Your task to perform on an android device: turn vacation reply on in the gmail app Image 0: 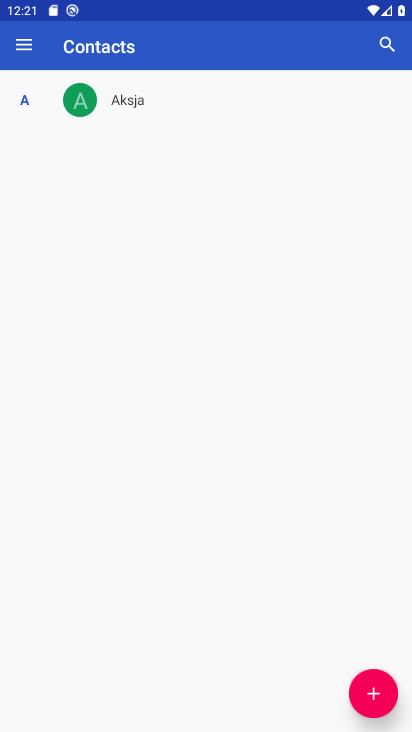
Step 0: press home button
Your task to perform on an android device: turn vacation reply on in the gmail app Image 1: 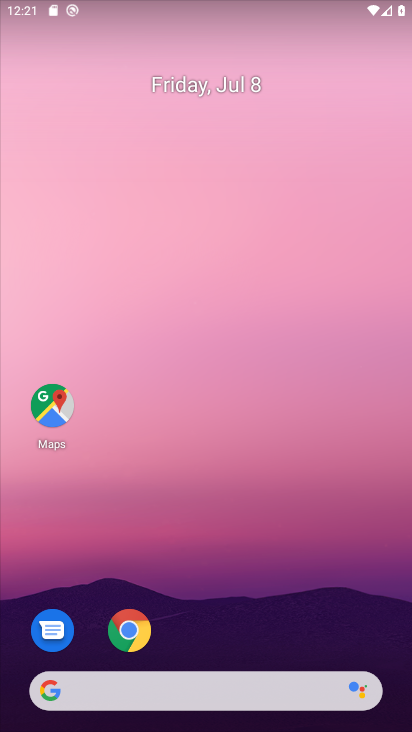
Step 1: drag from (293, 642) to (229, 136)
Your task to perform on an android device: turn vacation reply on in the gmail app Image 2: 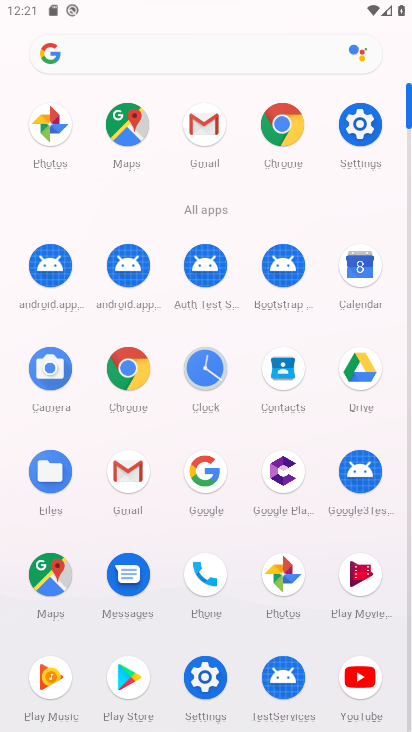
Step 2: click (128, 469)
Your task to perform on an android device: turn vacation reply on in the gmail app Image 3: 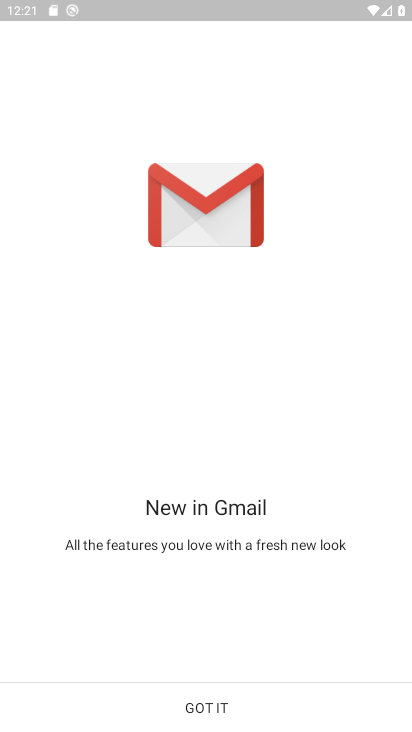
Step 3: click (161, 702)
Your task to perform on an android device: turn vacation reply on in the gmail app Image 4: 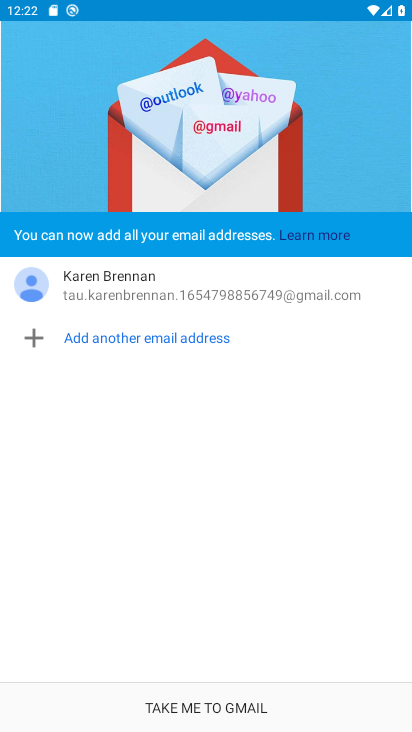
Step 4: click (222, 702)
Your task to perform on an android device: turn vacation reply on in the gmail app Image 5: 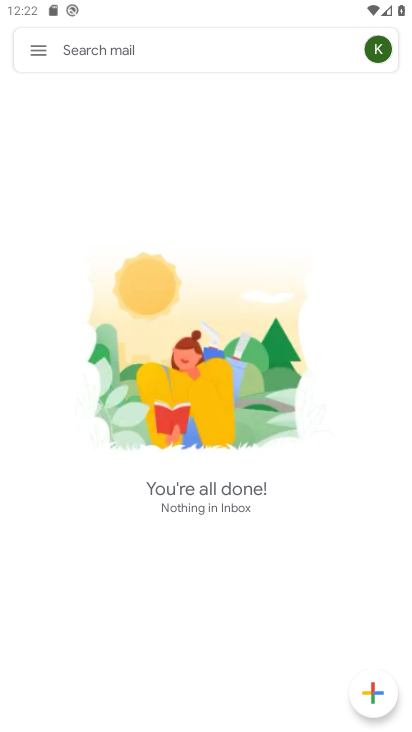
Step 5: click (42, 50)
Your task to perform on an android device: turn vacation reply on in the gmail app Image 6: 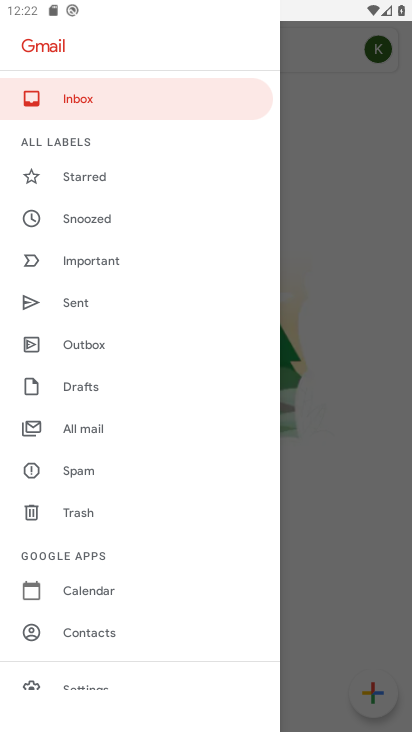
Step 6: drag from (89, 667) to (73, 560)
Your task to perform on an android device: turn vacation reply on in the gmail app Image 7: 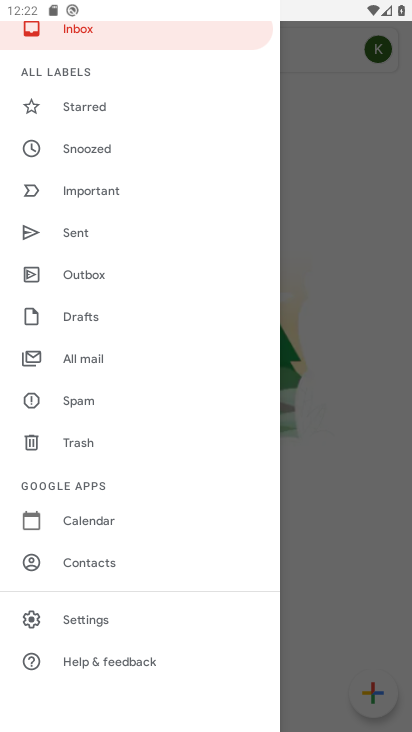
Step 7: click (85, 613)
Your task to perform on an android device: turn vacation reply on in the gmail app Image 8: 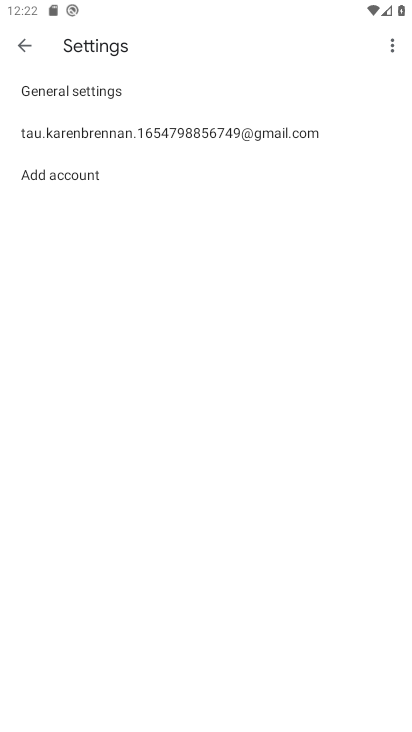
Step 8: click (36, 138)
Your task to perform on an android device: turn vacation reply on in the gmail app Image 9: 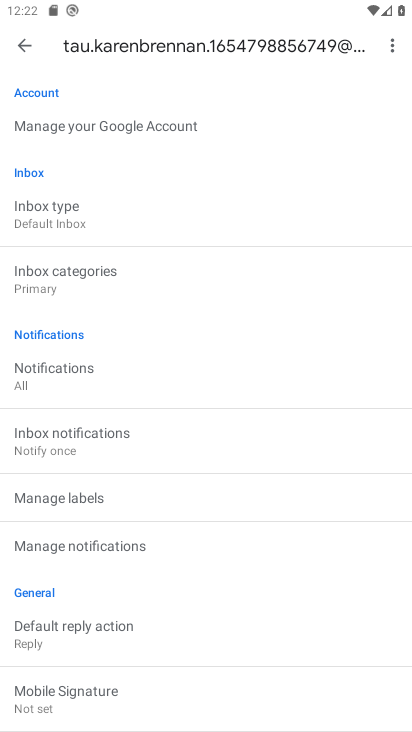
Step 9: drag from (185, 530) to (126, 137)
Your task to perform on an android device: turn vacation reply on in the gmail app Image 10: 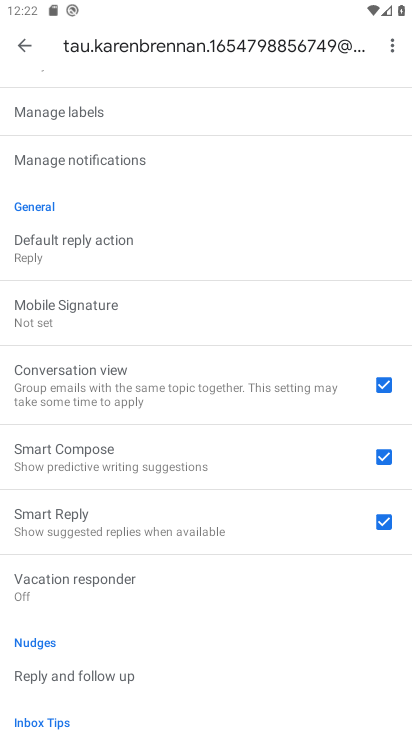
Step 10: click (124, 568)
Your task to perform on an android device: turn vacation reply on in the gmail app Image 11: 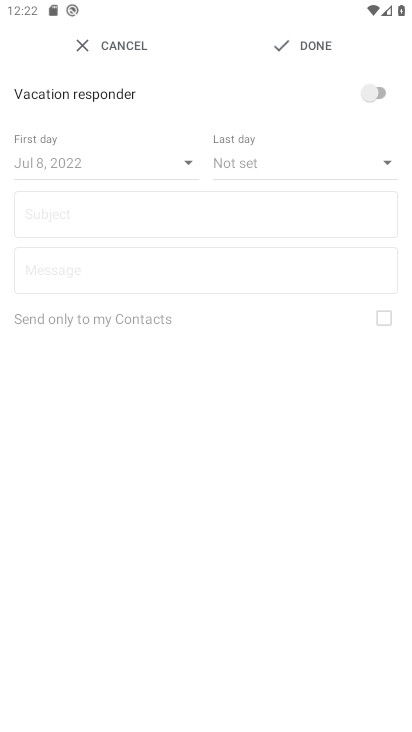
Step 11: click (383, 96)
Your task to perform on an android device: turn vacation reply on in the gmail app Image 12: 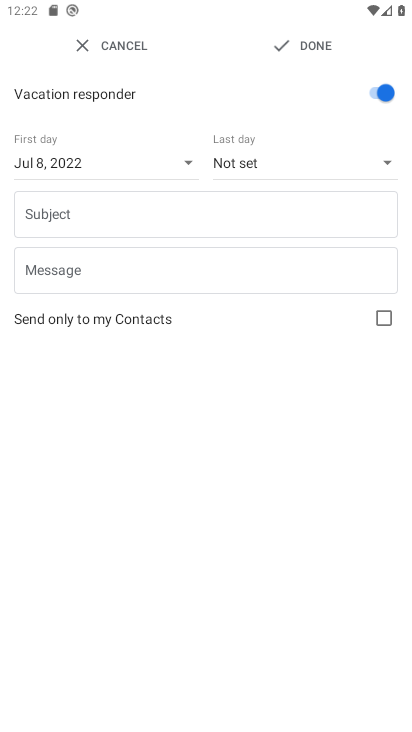
Step 12: click (308, 43)
Your task to perform on an android device: turn vacation reply on in the gmail app Image 13: 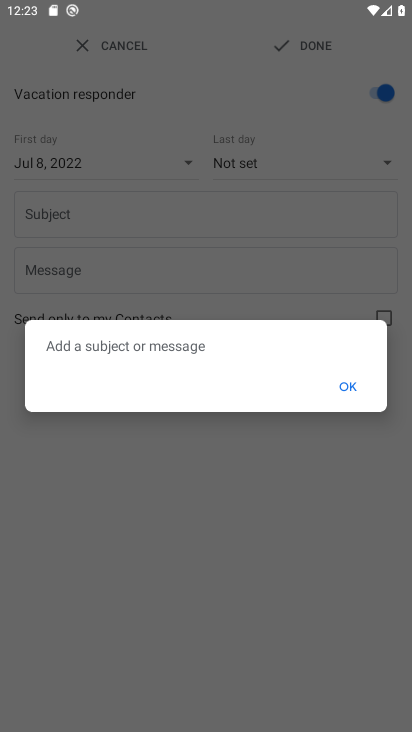
Step 13: click (359, 384)
Your task to perform on an android device: turn vacation reply on in the gmail app Image 14: 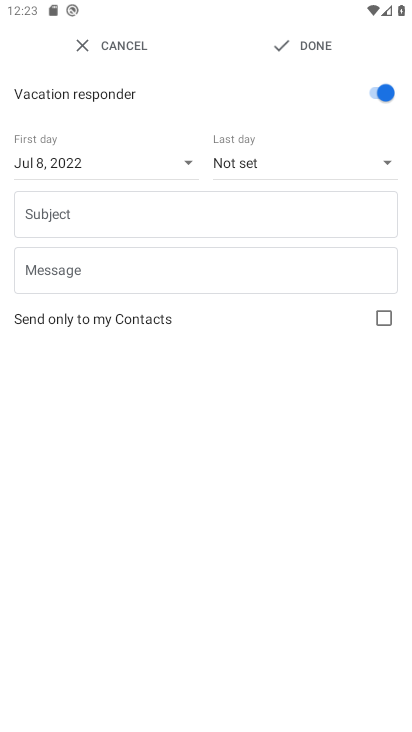
Step 14: click (130, 222)
Your task to perform on an android device: turn vacation reply on in the gmail app Image 15: 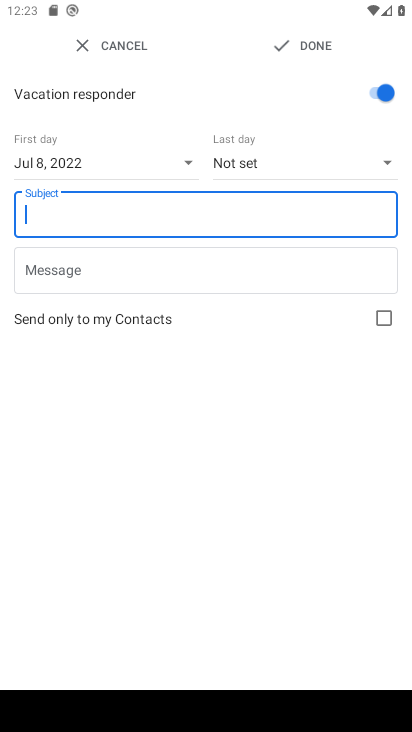
Step 15: type "g"
Your task to perform on an android device: turn vacation reply on in the gmail app Image 16: 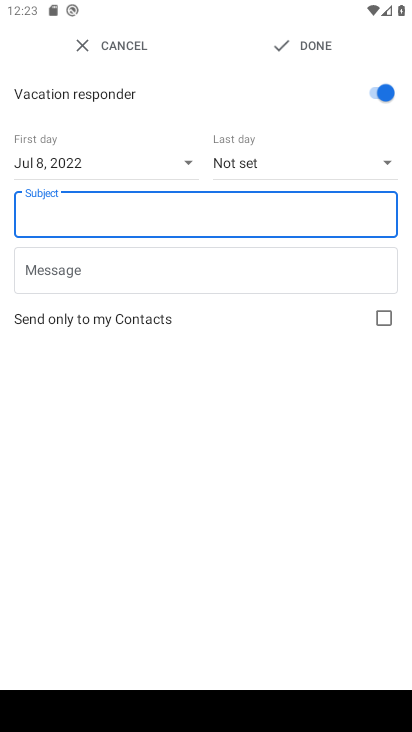
Step 16: click (81, 281)
Your task to perform on an android device: turn vacation reply on in the gmail app Image 17: 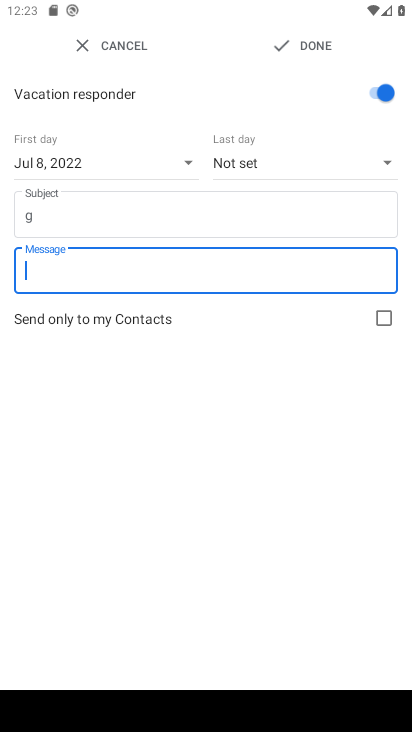
Step 17: type "p"
Your task to perform on an android device: turn vacation reply on in the gmail app Image 18: 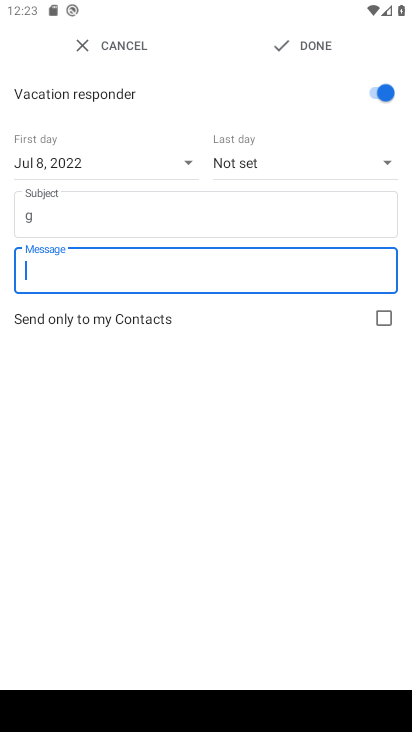
Step 18: click (300, 27)
Your task to perform on an android device: turn vacation reply on in the gmail app Image 19: 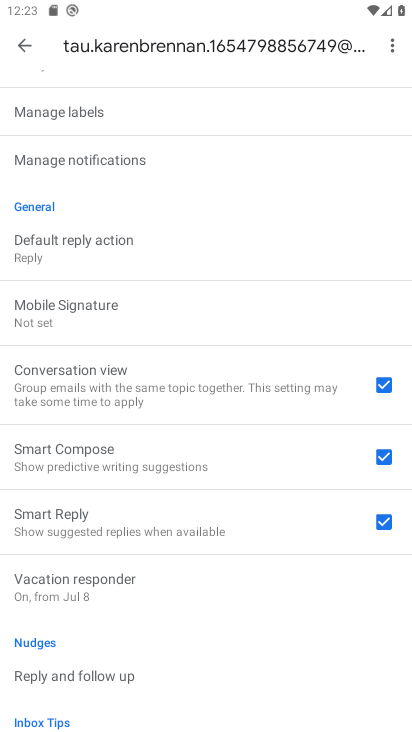
Step 19: task complete